Your task to perform on an android device: open app "Etsy: Buy & Sell Unique Items" (install if not already installed) and go to login screen Image 0: 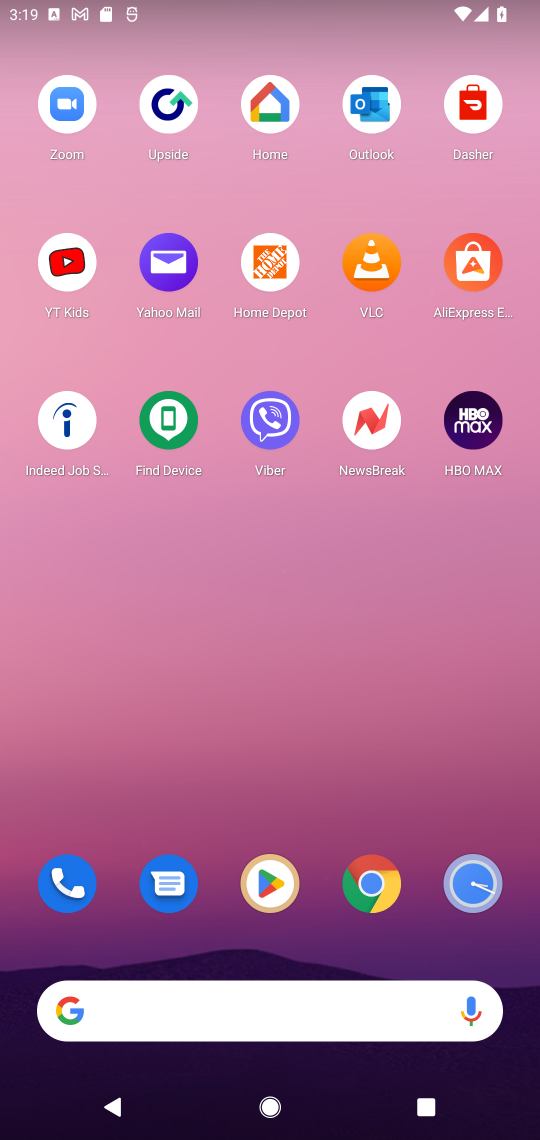
Step 0: press home button
Your task to perform on an android device: open app "Etsy: Buy & Sell Unique Items" (install if not already installed) and go to login screen Image 1: 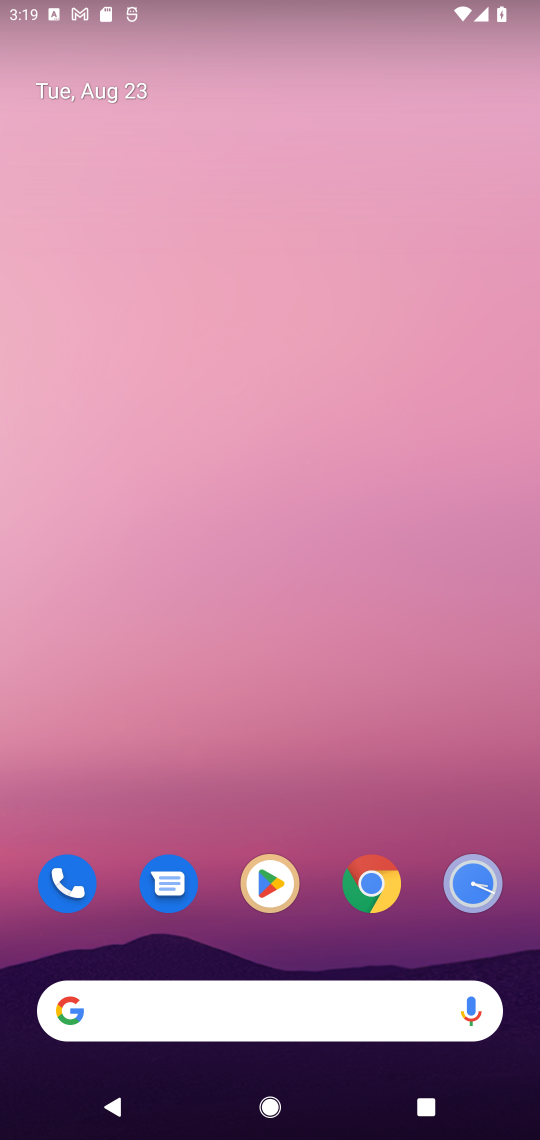
Step 1: drag from (269, 973) to (190, 28)
Your task to perform on an android device: open app "Etsy: Buy & Sell Unique Items" (install if not already installed) and go to login screen Image 2: 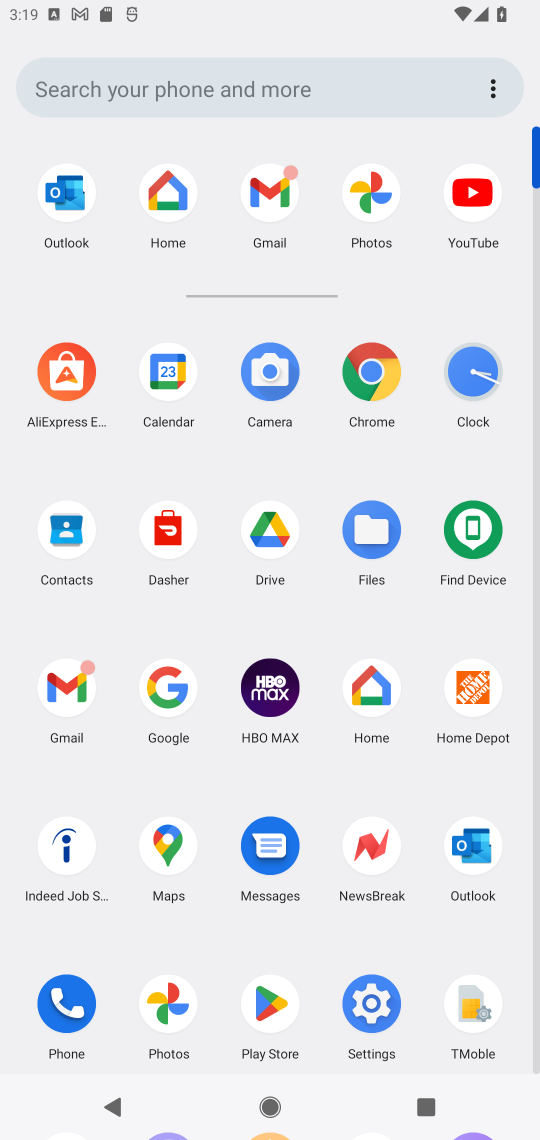
Step 2: click (276, 996)
Your task to perform on an android device: open app "Etsy: Buy & Sell Unique Items" (install if not already installed) and go to login screen Image 3: 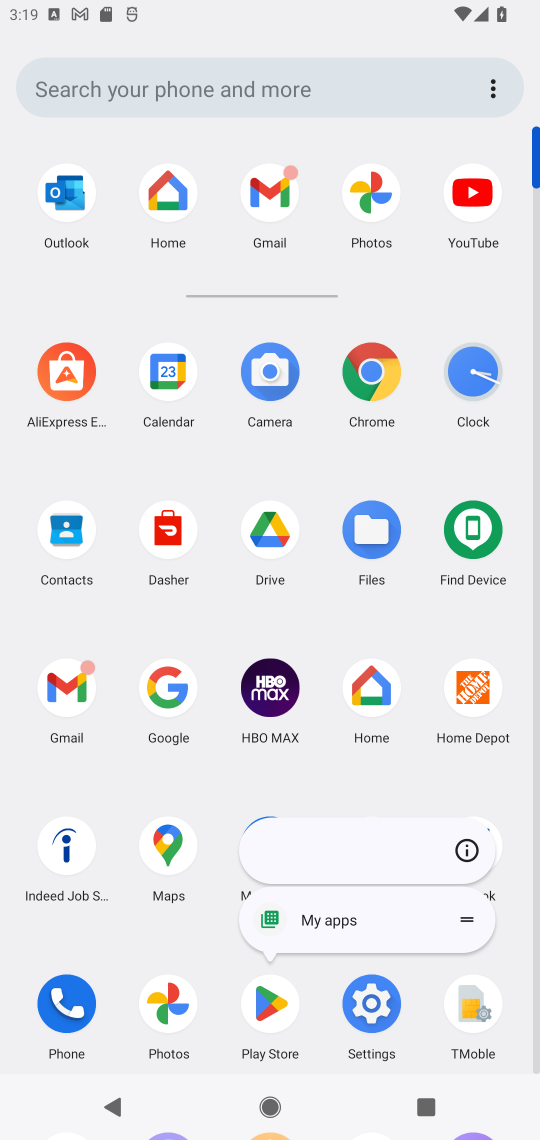
Step 3: click (276, 994)
Your task to perform on an android device: open app "Etsy: Buy & Sell Unique Items" (install if not already installed) and go to login screen Image 4: 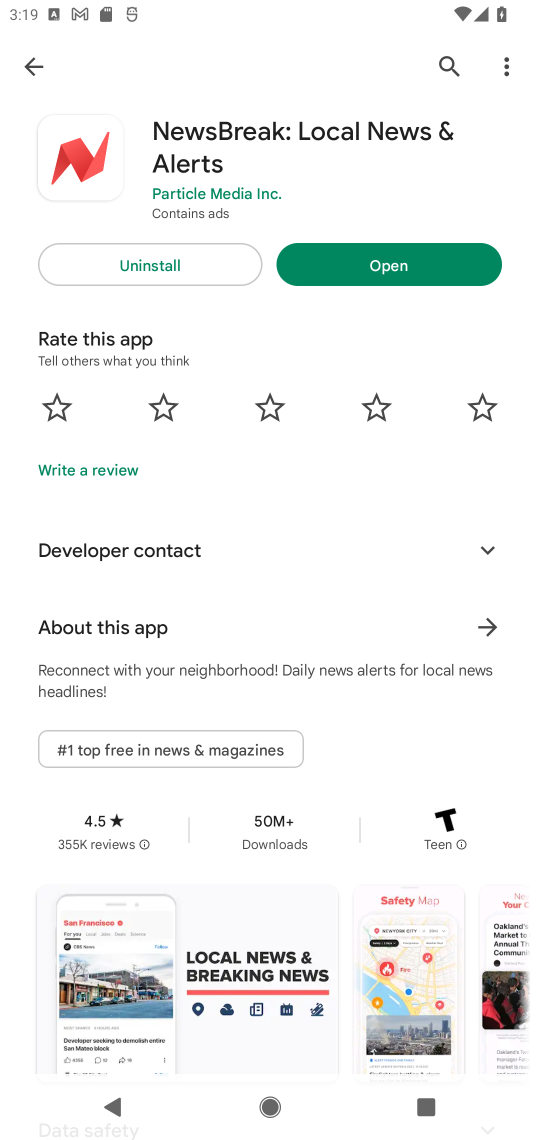
Step 4: click (278, 1005)
Your task to perform on an android device: open app "Etsy: Buy & Sell Unique Items" (install if not already installed) and go to login screen Image 5: 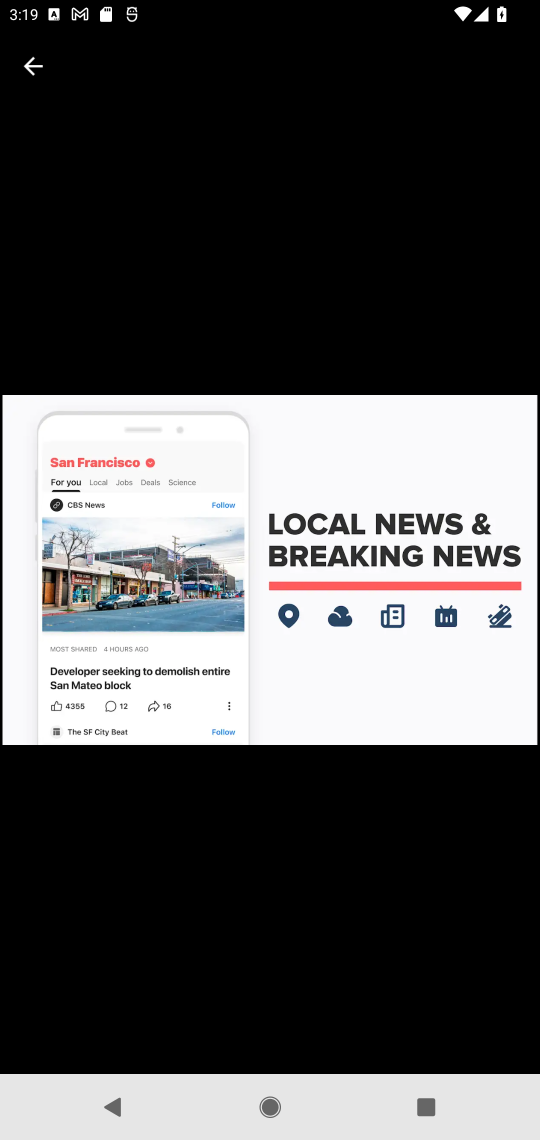
Step 5: press back button
Your task to perform on an android device: open app "Etsy: Buy & Sell Unique Items" (install if not already installed) and go to login screen Image 6: 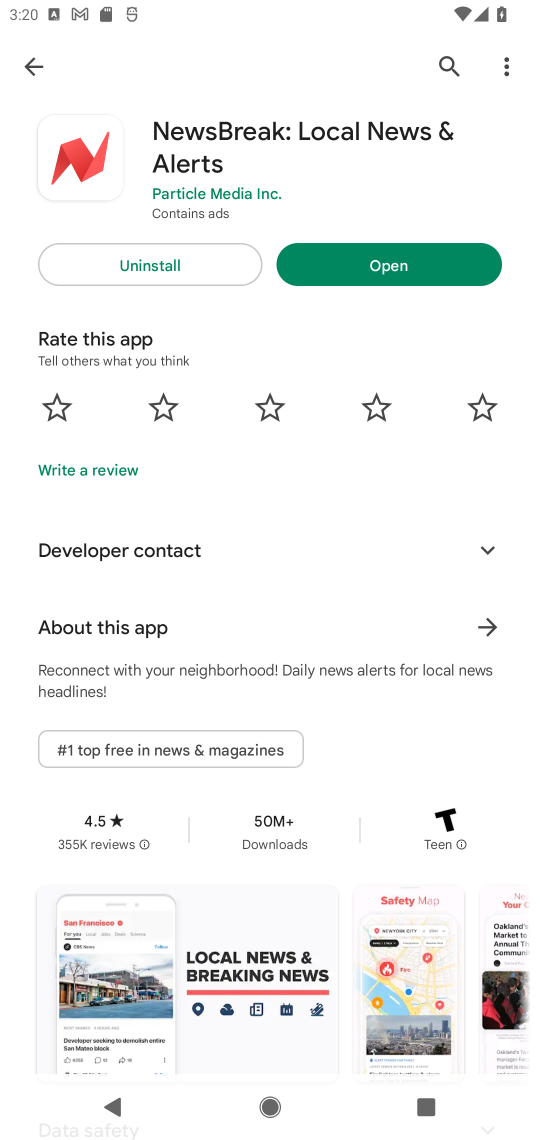
Step 6: click (441, 64)
Your task to perform on an android device: open app "Etsy: Buy & Sell Unique Items" (install if not already installed) and go to login screen Image 7: 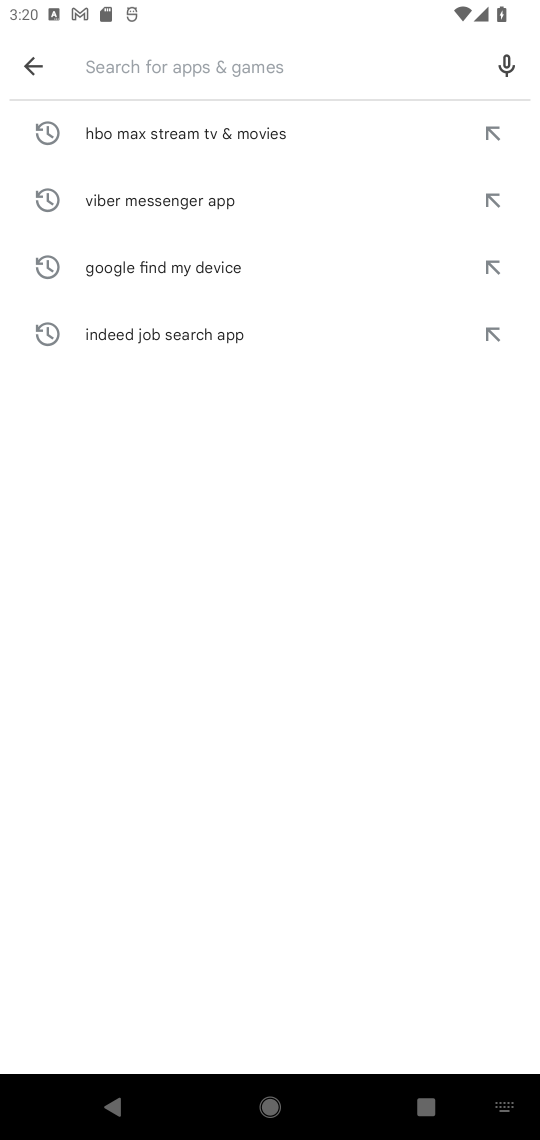
Step 7: click (215, 59)
Your task to perform on an android device: open app "Etsy: Buy & Sell Unique Items" (install if not already installed) and go to login screen Image 8: 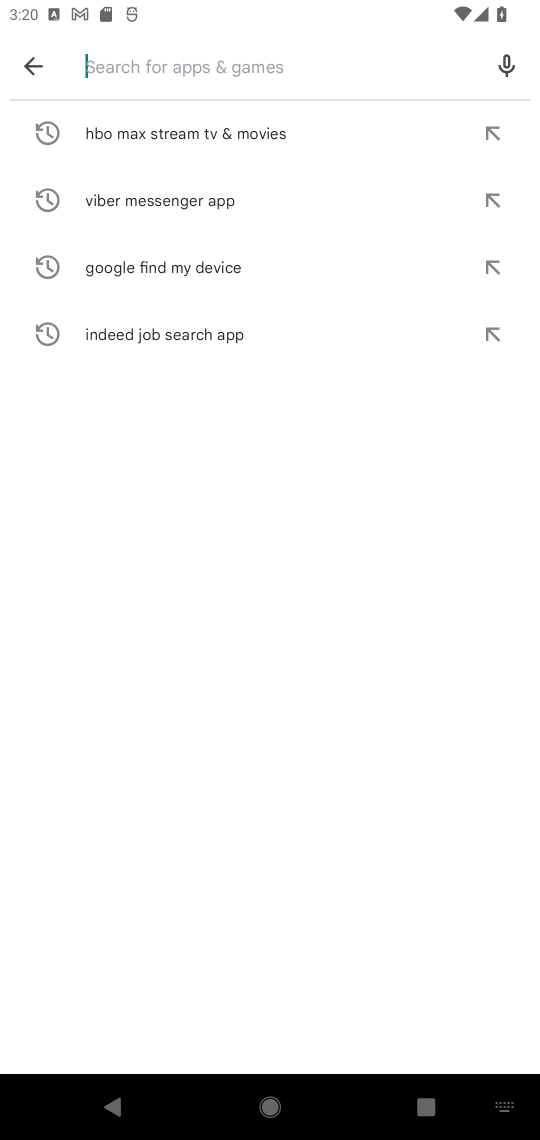
Step 8: type "Etsy: Buy & Sell Unique Items"
Your task to perform on an android device: open app "Etsy: Buy & Sell Unique Items" (install if not already installed) and go to login screen Image 9: 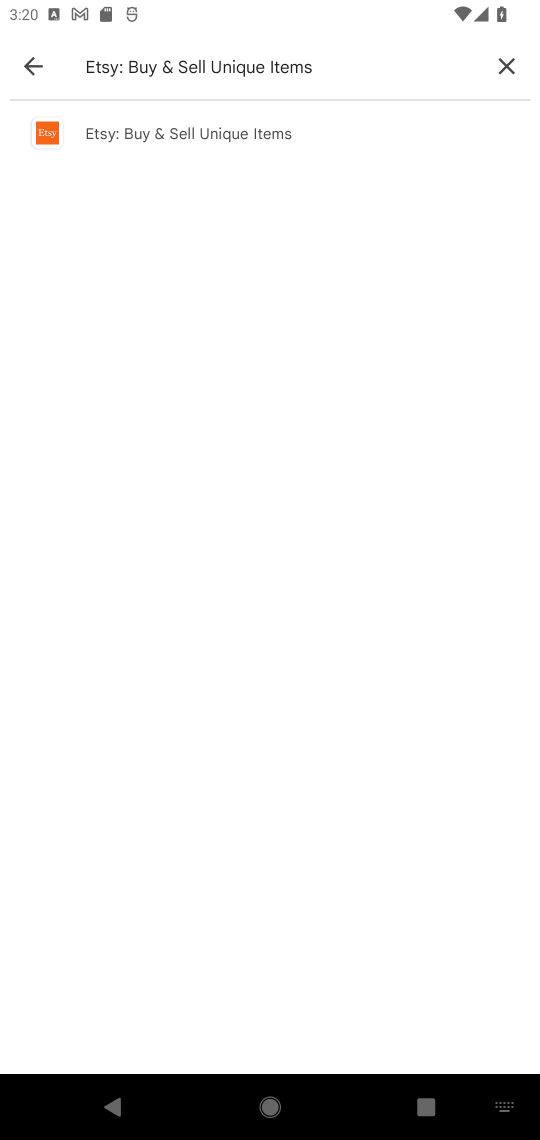
Step 9: click (190, 132)
Your task to perform on an android device: open app "Etsy: Buy & Sell Unique Items" (install if not already installed) and go to login screen Image 10: 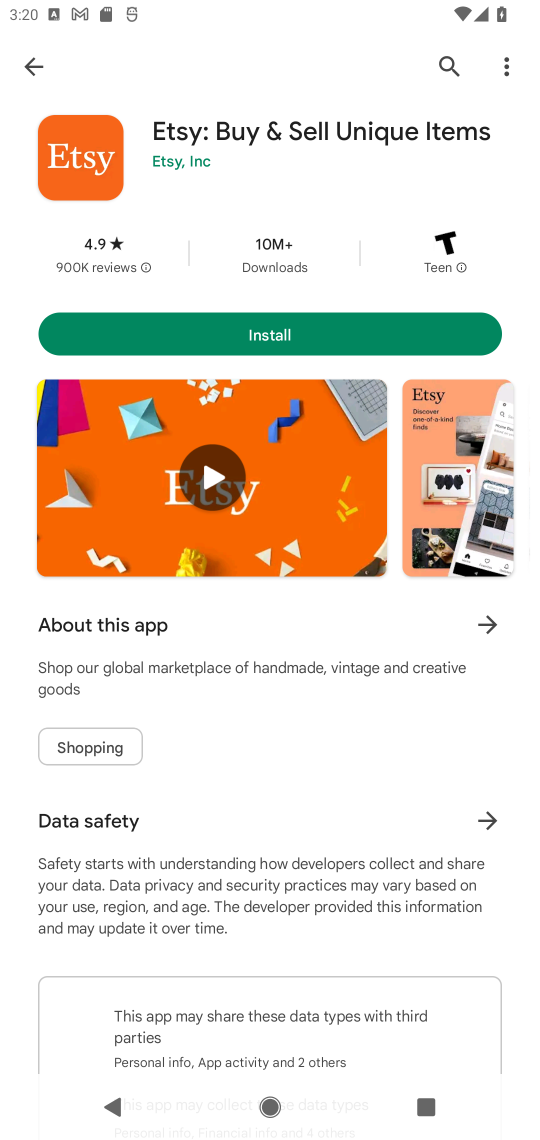
Step 10: click (299, 333)
Your task to perform on an android device: open app "Etsy: Buy & Sell Unique Items" (install if not already installed) and go to login screen Image 11: 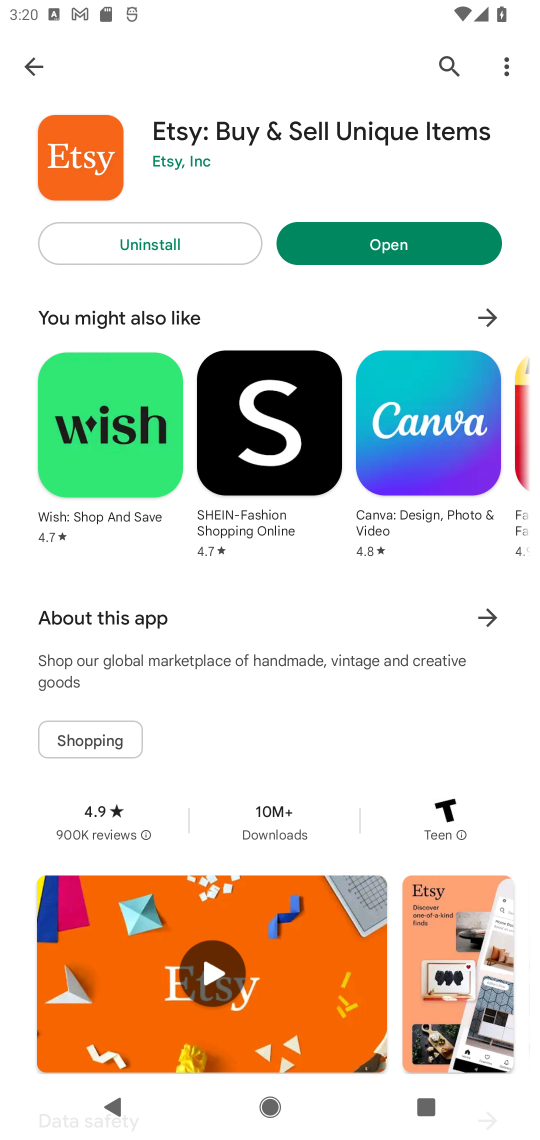
Step 11: click (369, 232)
Your task to perform on an android device: open app "Etsy: Buy & Sell Unique Items" (install if not already installed) and go to login screen Image 12: 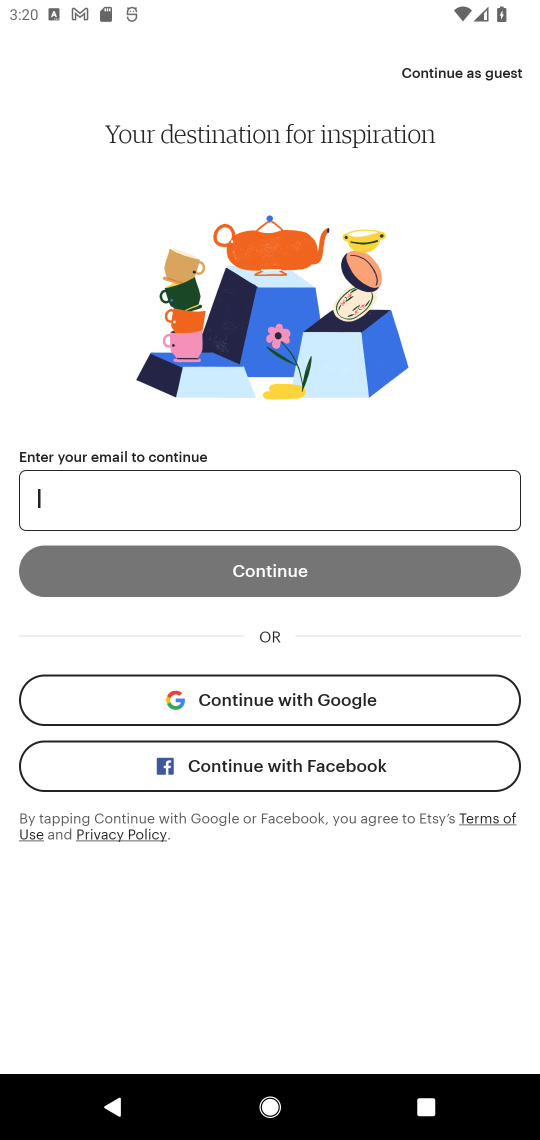
Step 12: press home button
Your task to perform on an android device: open app "Etsy: Buy & Sell Unique Items" (install if not already installed) and go to login screen Image 13: 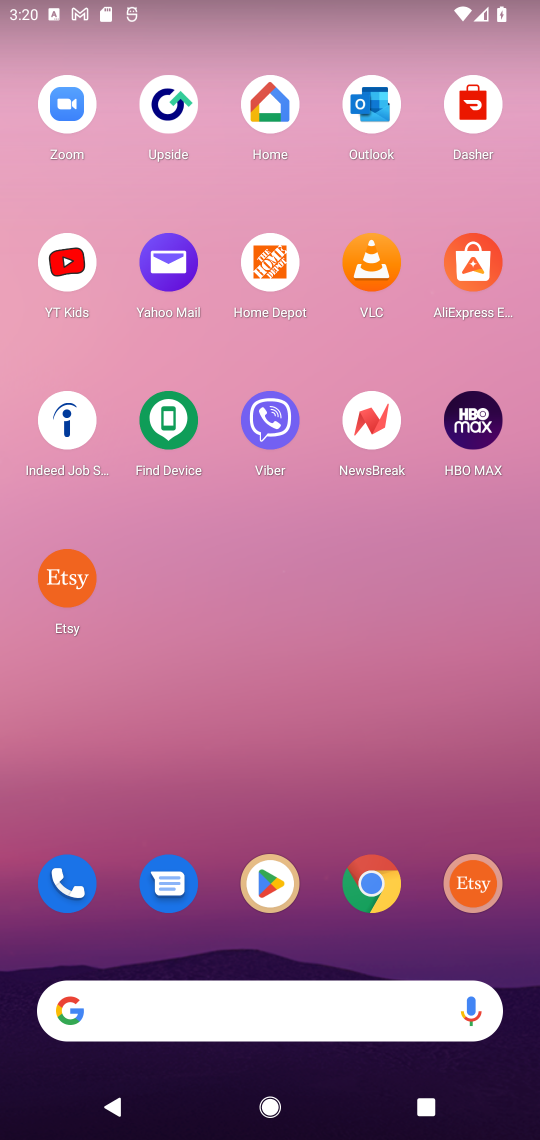
Step 13: drag from (277, 971) to (227, 175)
Your task to perform on an android device: open app "Etsy: Buy & Sell Unique Items" (install if not already installed) and go to login screen Image 14: 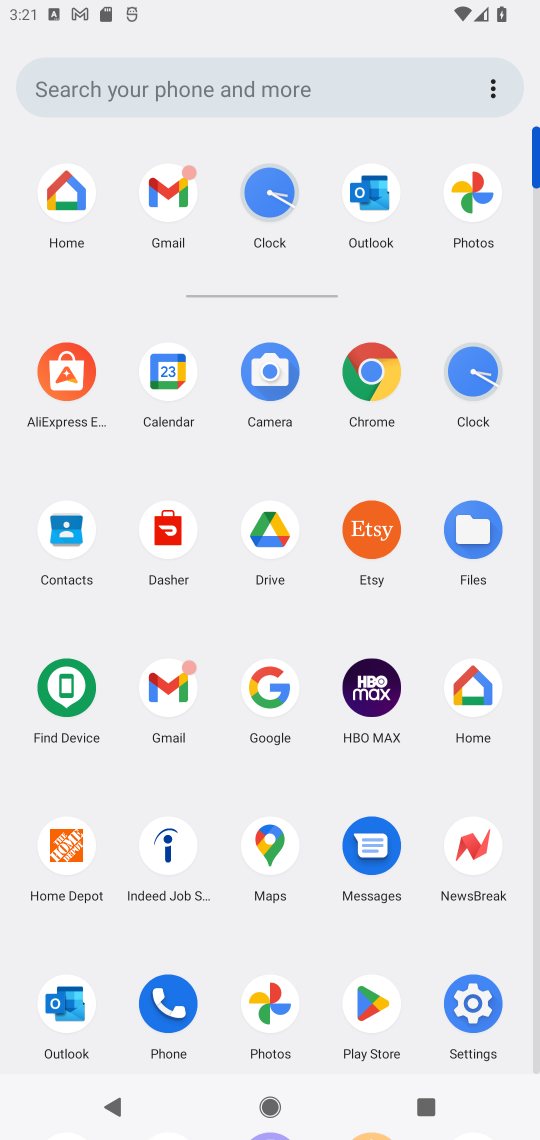
Step 14: click (367, 995)
Your task to perform on an android device: open app "Etsy: Buy & Sell Unique Items" (install if not already installed) and go to login screen Image 15: 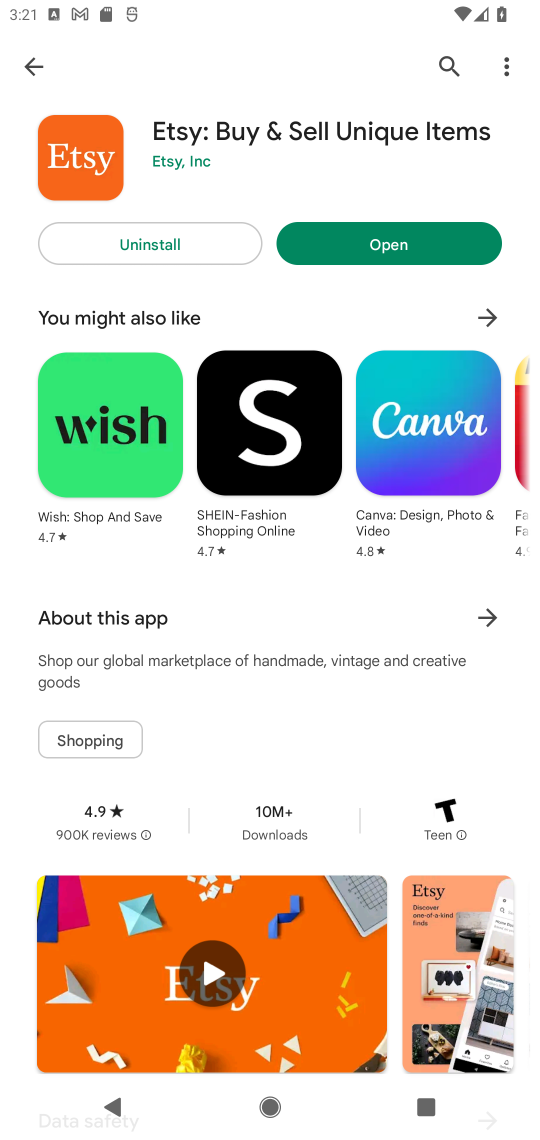
Step 15: click (417, 249)
Your task to perform on an android device: open app "Etsy: Buy & Sell Unique Items" (install if not already installed) and go to login screen Image 16: 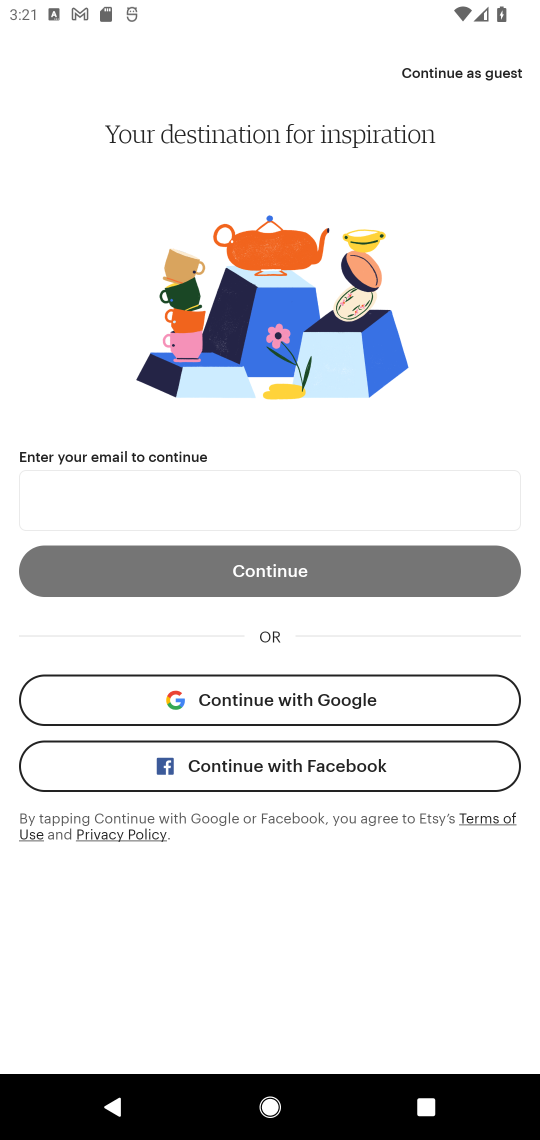
Step 16: click (217, 696)
Your task to perform on an android device: open app "Etsy: Buy & Sell Unique Items" (install if not already installed) and go to login screen Image 17: 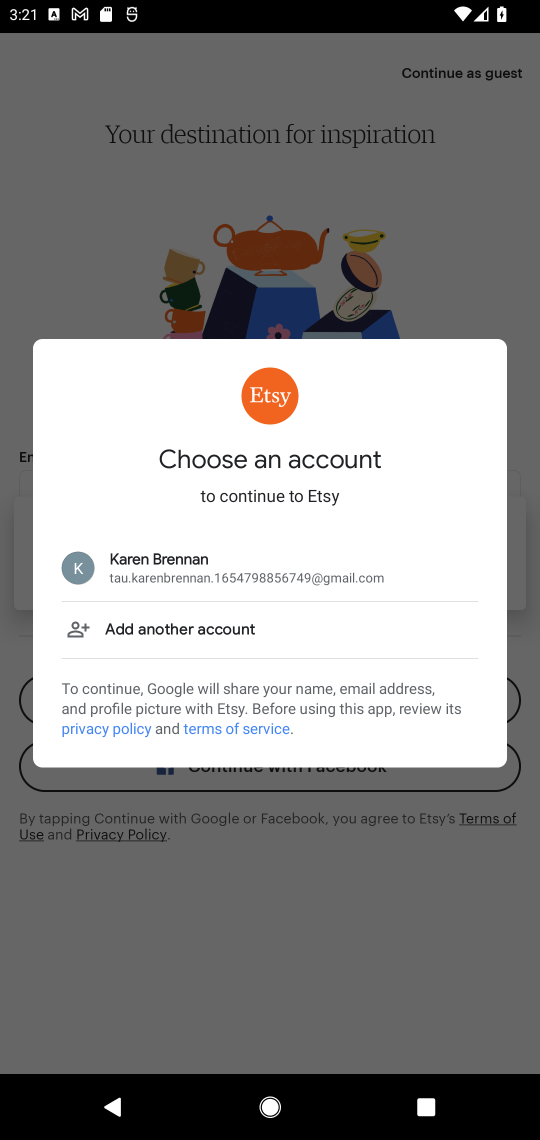
Step 17: task complete